Your task to perform on an android device: delete location history Image 0: 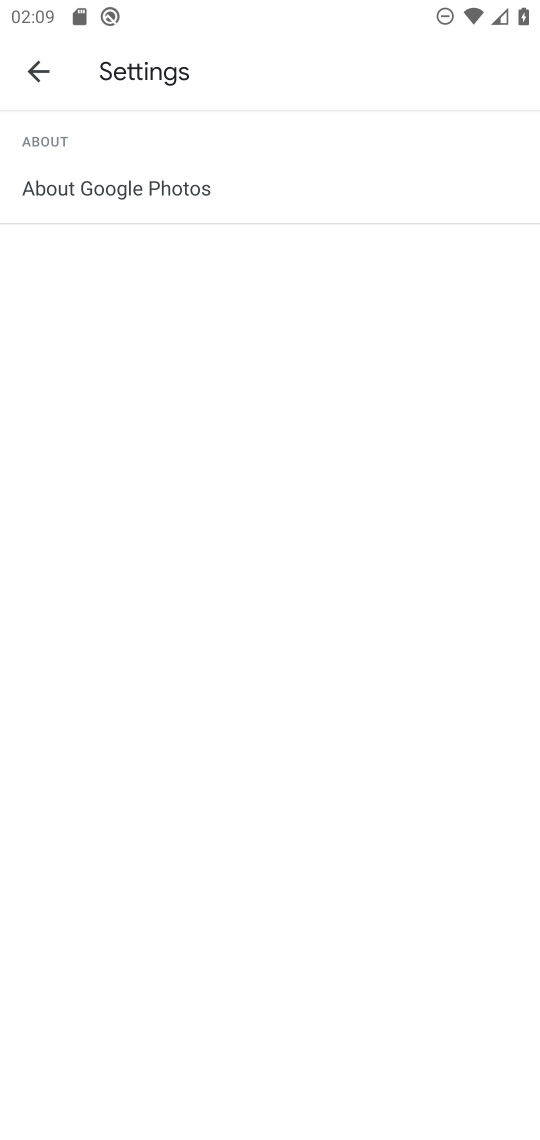
Step 0: press home button
Your task to perform on an android device: delete location history Image 1: 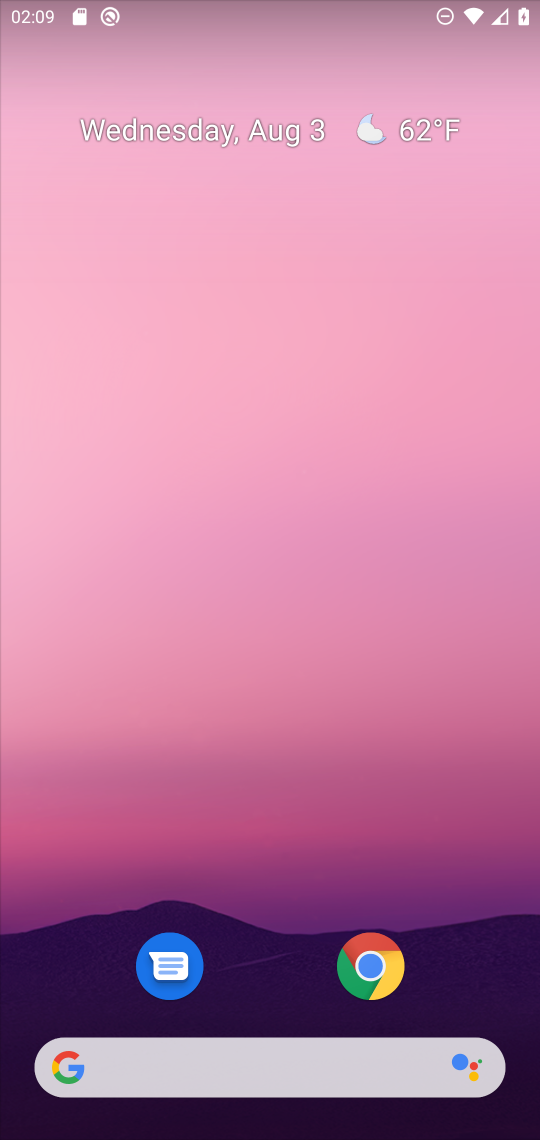
Step 1: drag from (372, 560) to (406, 312)
Your task to perform on an android device: delete location history Image 2: 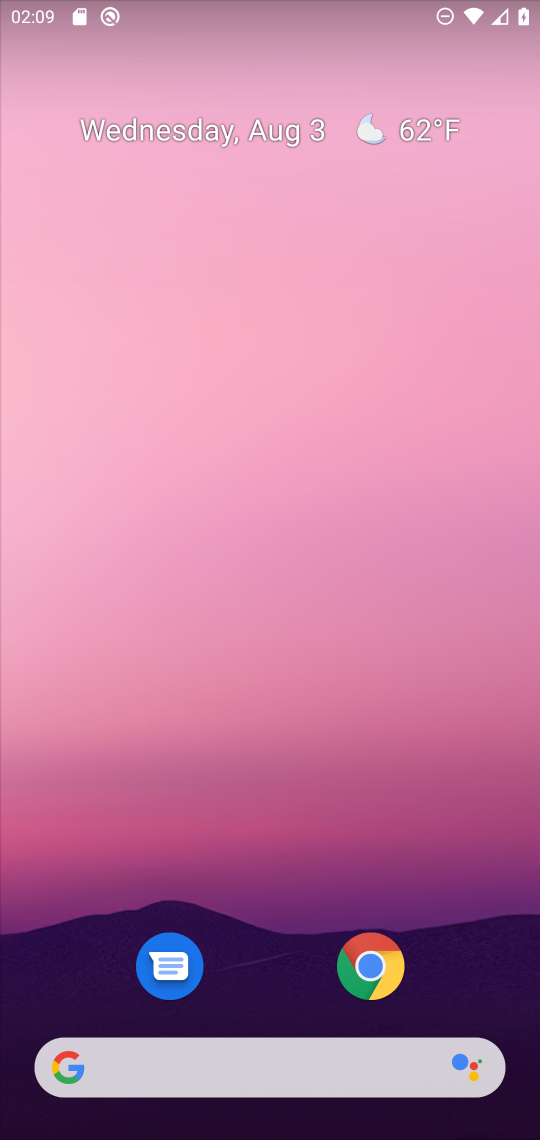
Step 2: drag from (275, 971) to (328, 323)
Your task to perform on an android device: delete location history Image 3: 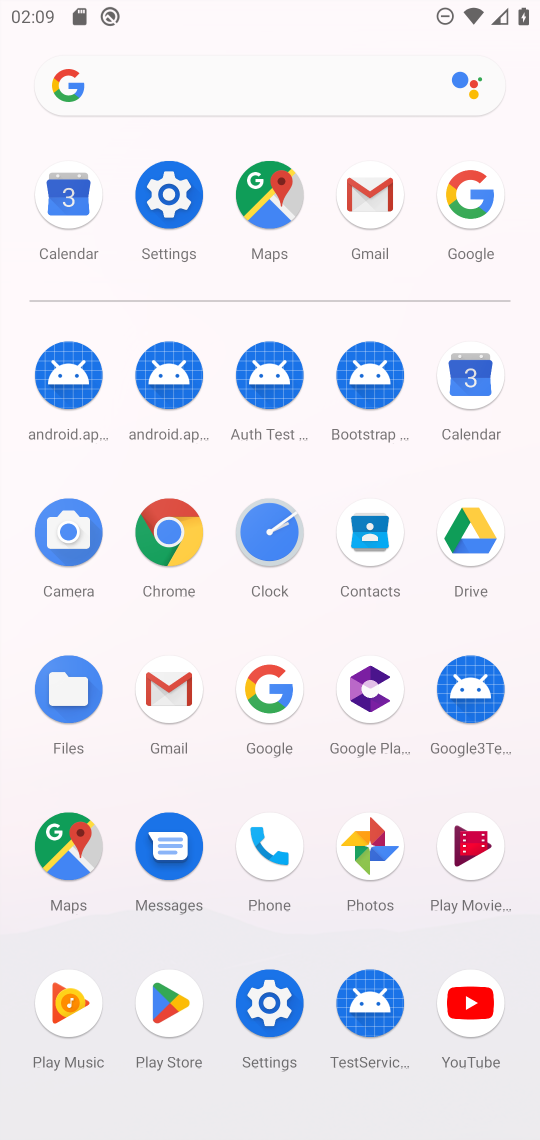
Step 3: click (242, 196)
Your task to perform on an android device: delete location history Image 4: 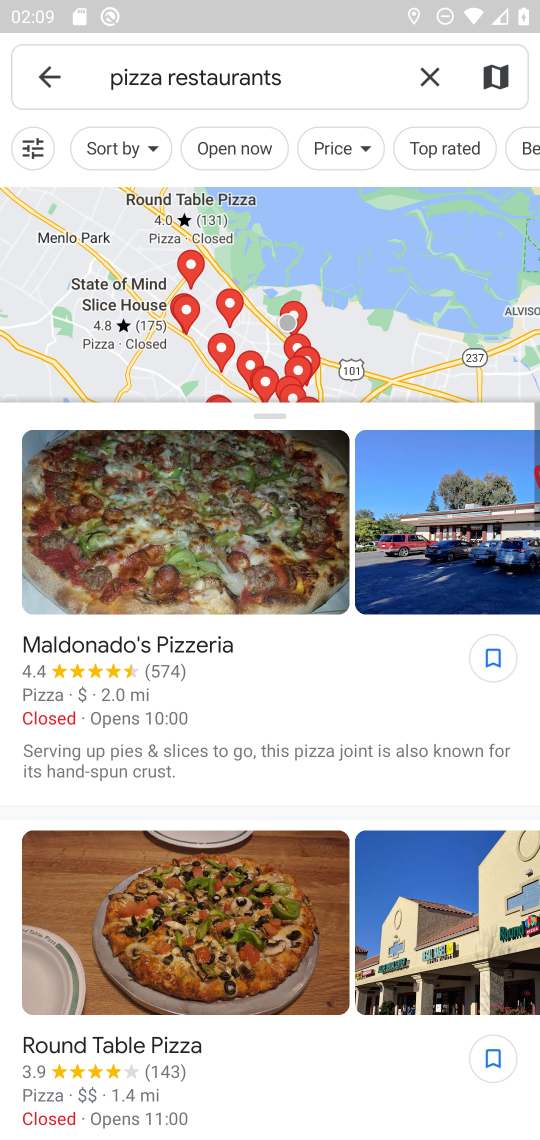
Step 4: click (61, 77)
Your task to perform on an android device: delete location history Image 5: 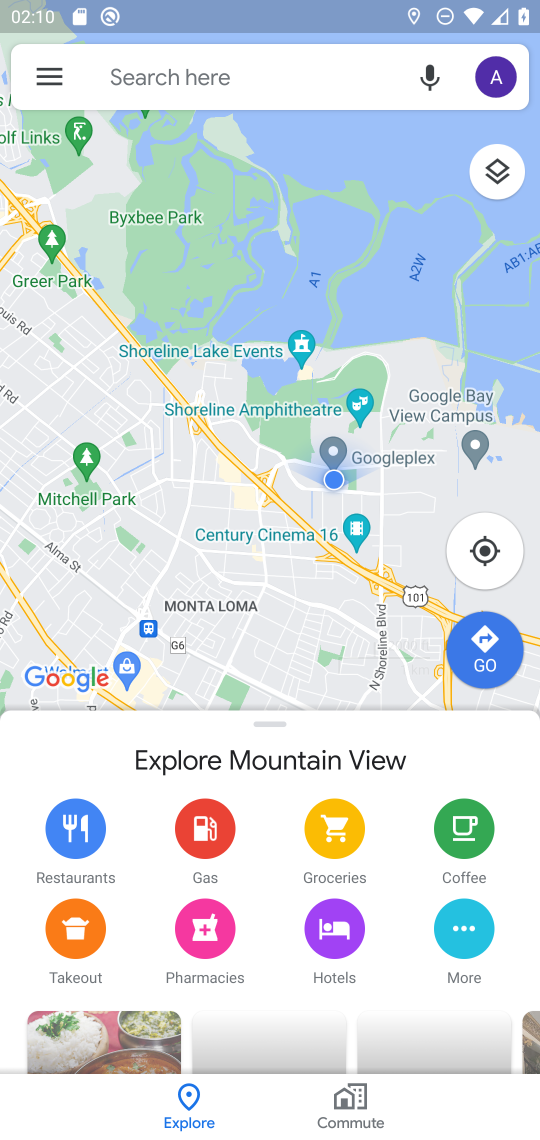
Step 5: click (63, 82)
Your task to perform on an android device: delete location history Image 6: 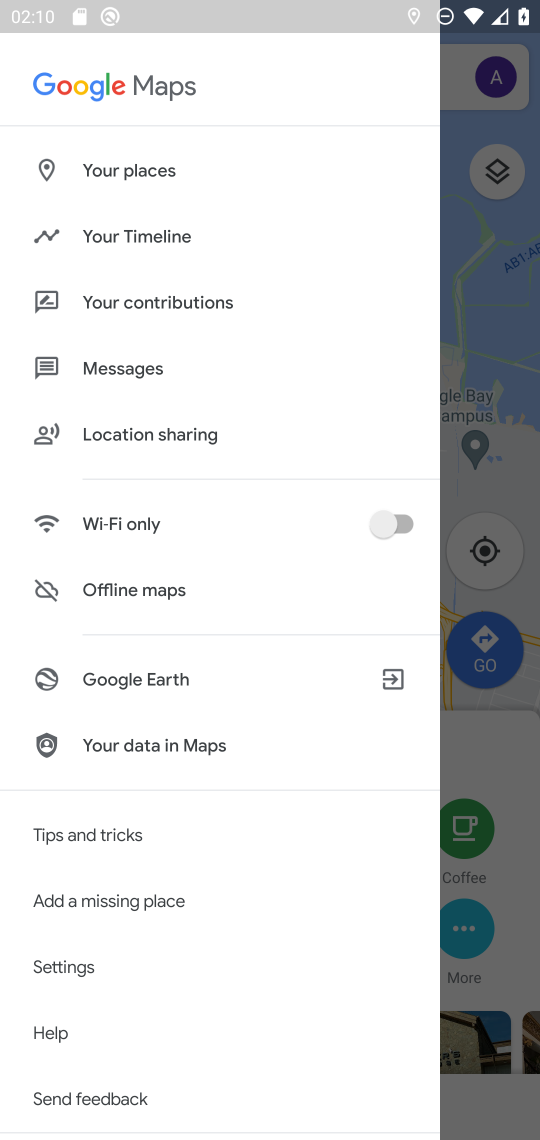
Step 6: click (165, 232)
Your task to perform on an android device: delete location history Image 7: 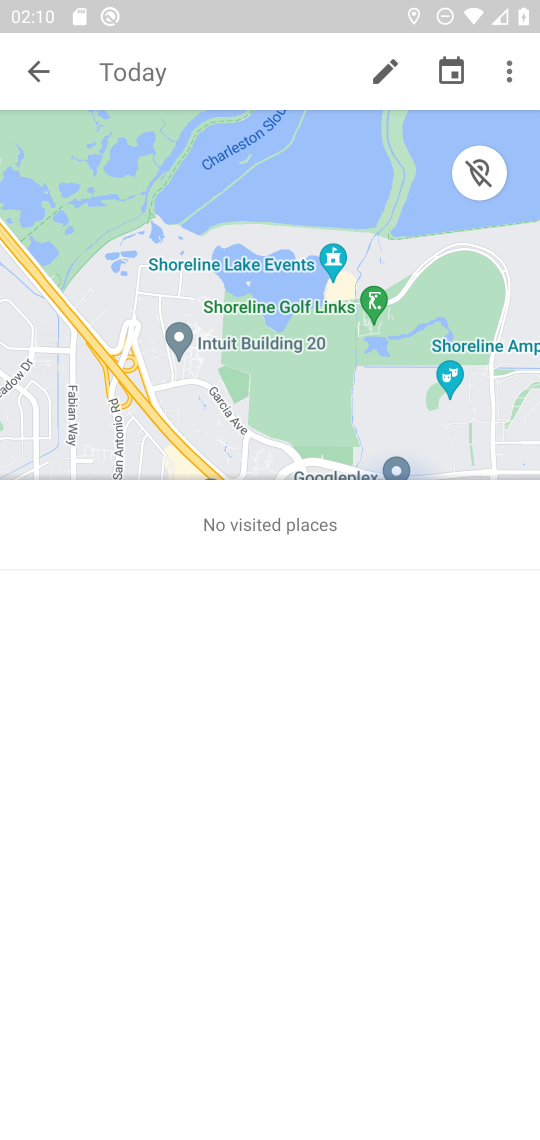
Step 7: click (506, 82)
Your task to perform on an android device: delete location history Image 8: 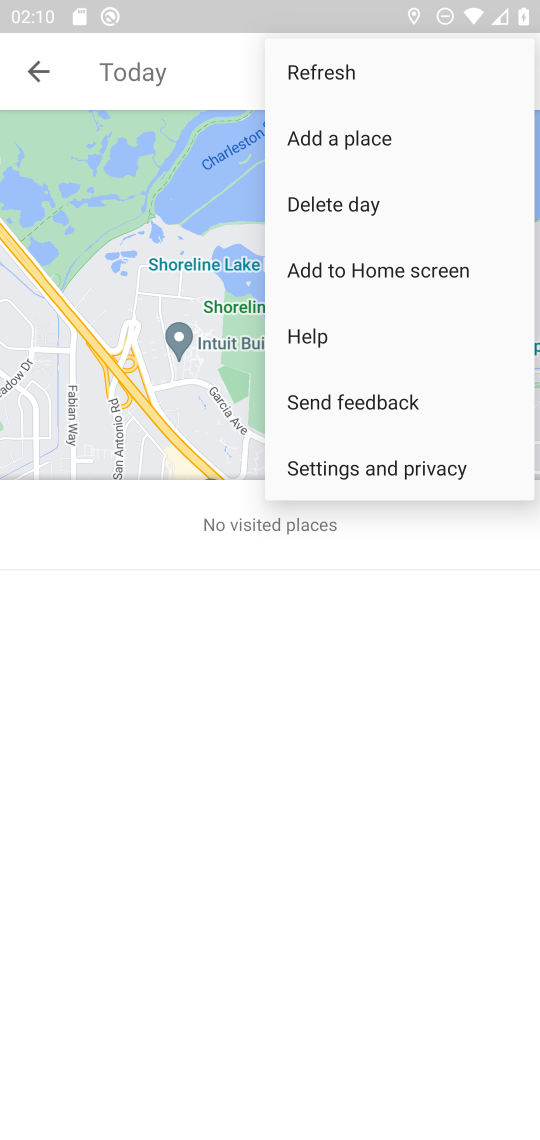
Step 8: click (398, 478)
Your task to perform on an android device: delete location history Image 9: 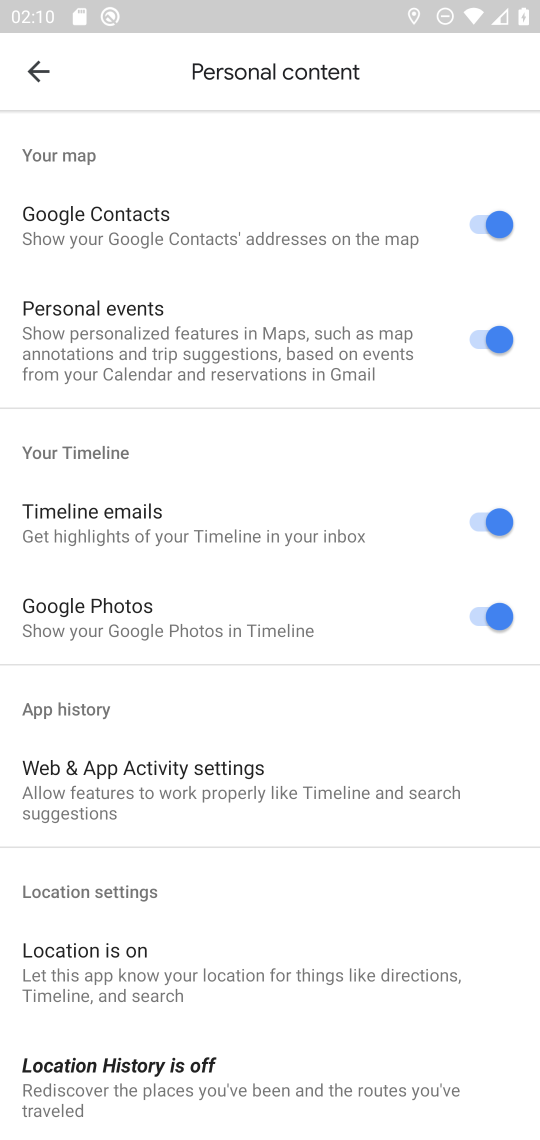
Step 9: drag from (232, 969) to (308, 474)
Your task to perform on an android device: delete location history Image 10: 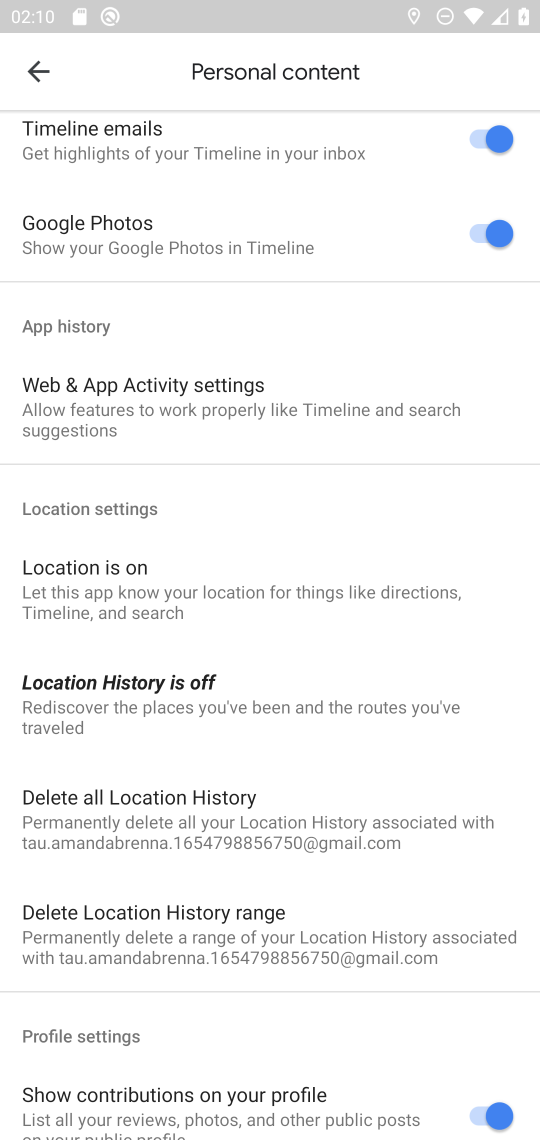
Step 10: click (221, 826)
Your task to perform on an android device: delete location history Image 11: 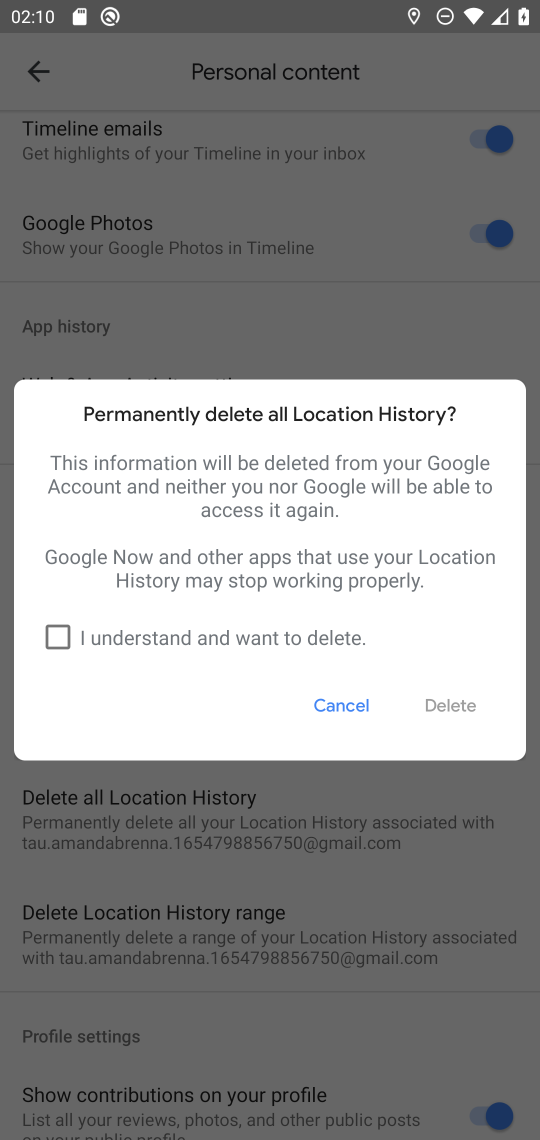
Step 11: click (263, 645)
Your task to perform on an android device: delete location history Image 12: 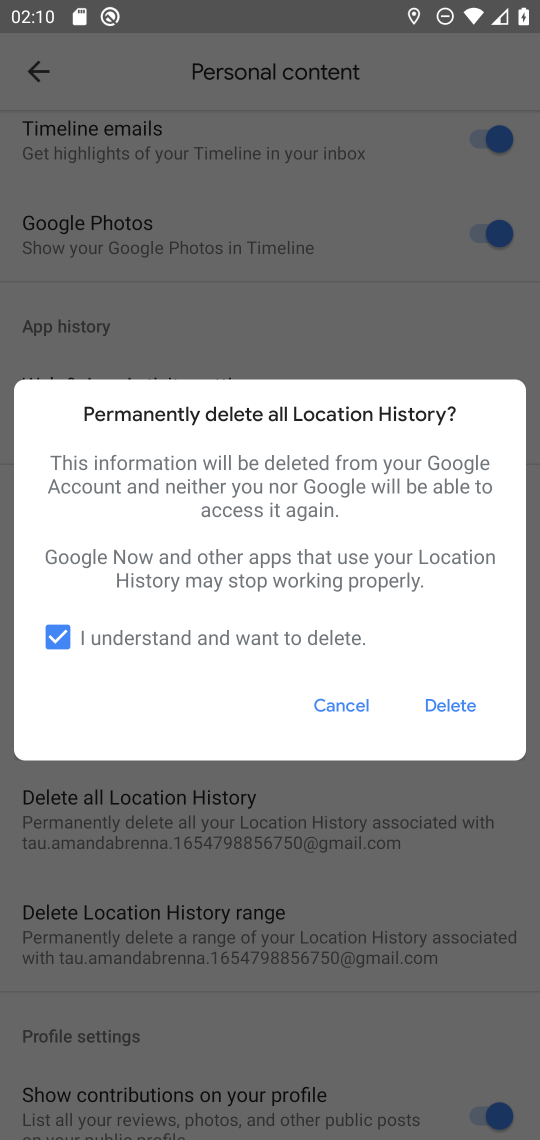
Step 12: click (466, 706)
Your task to perform on an android device: delete location history Image 13: 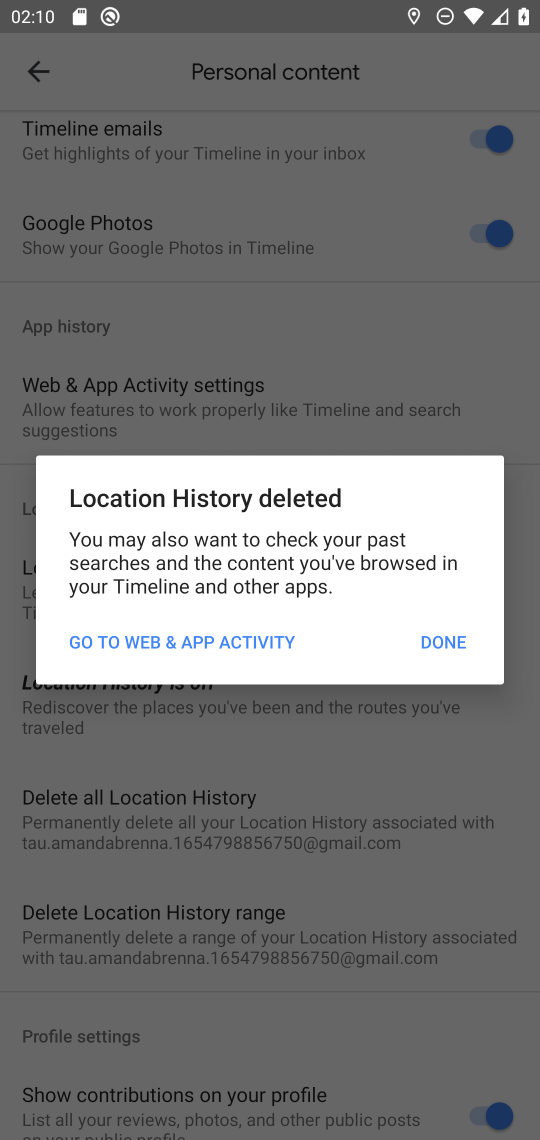
Step 13: click (455, 651)
Your task to perform on an android device: delete location history Image 14: 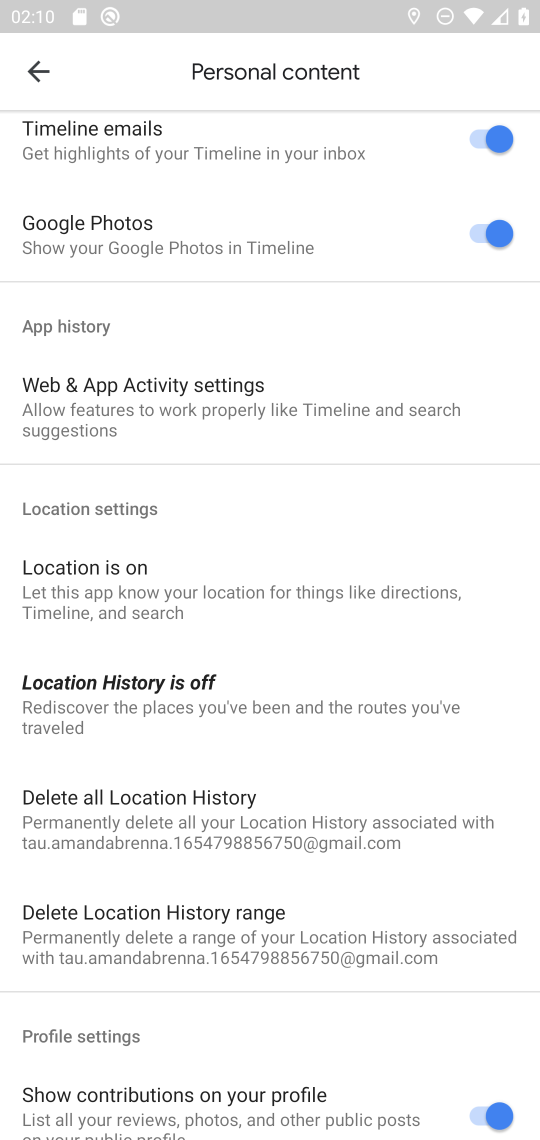
Step 14: task complete